Your task to perform on an android device: change alarm snooze length Image 0: 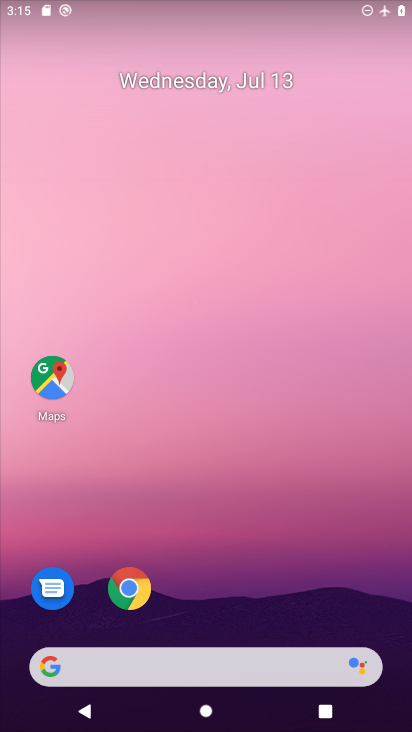
Step 0: drag from (229, 637) to (284, 74)
Your task to perform on an android device: change alarm snooze length Image 1: 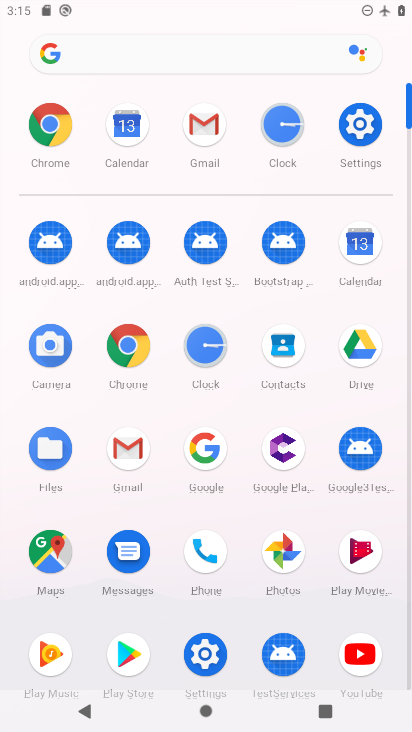
Step 1: click (204, 347)
Your task to perform on an android device: change alarm snooze length Image 2: 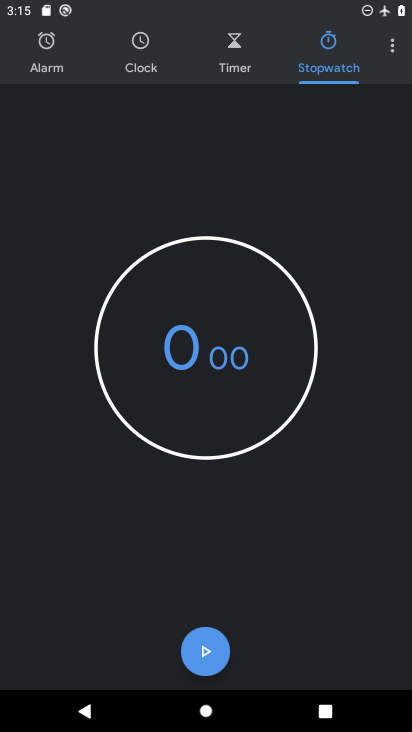
Step 2: click (383, 46)
Your task to perform on an android device: change alarm snooze length Image 3: 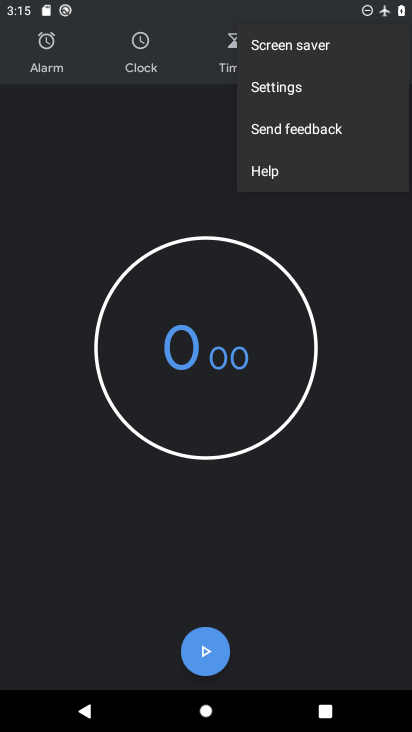
Step 3: click (283, 80)
Your task to perform on an android device: change alarm snooze length Image 4: 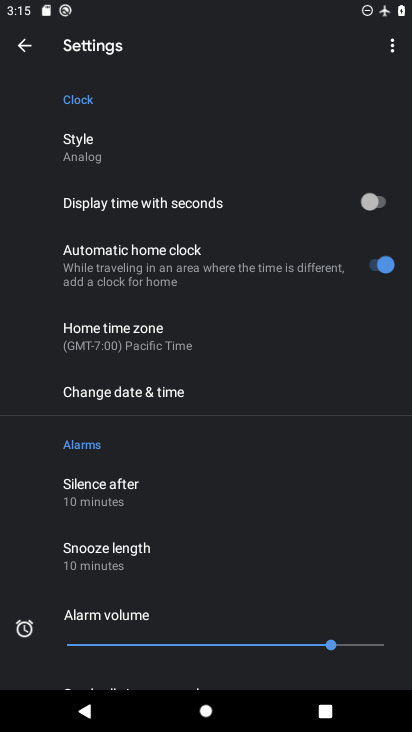
Step 4: click (131, 551)
Your task to perform on an android device: change alarm snooze length Image 5: 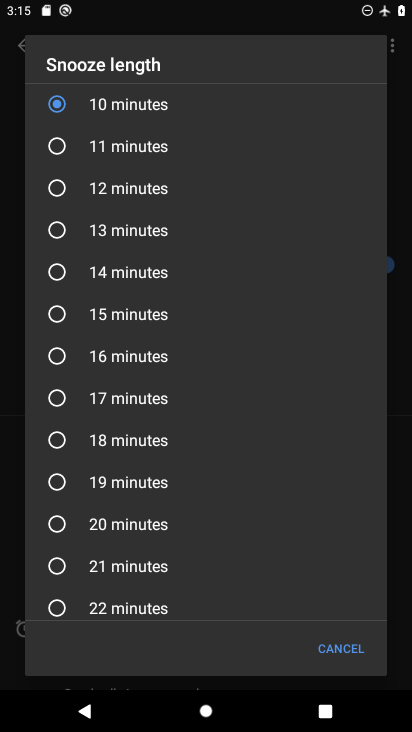
Step 5: click (82, 143)
Your task to perform on an android device: change alarm snooze length Image 6: 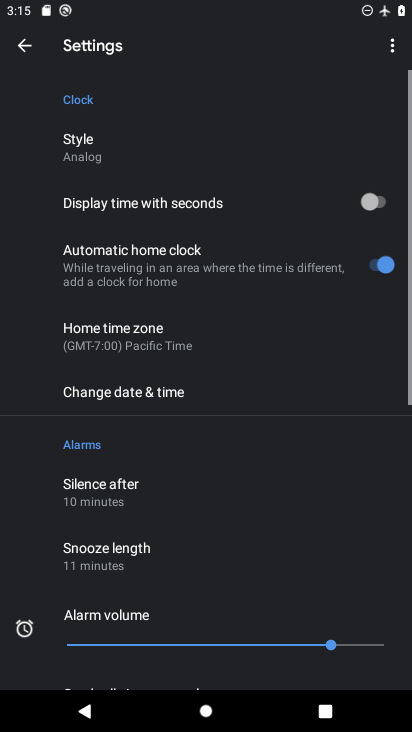
Step 6: task complete